Your task to perform on an android device: search for starred emails in the gmail app Image 0: 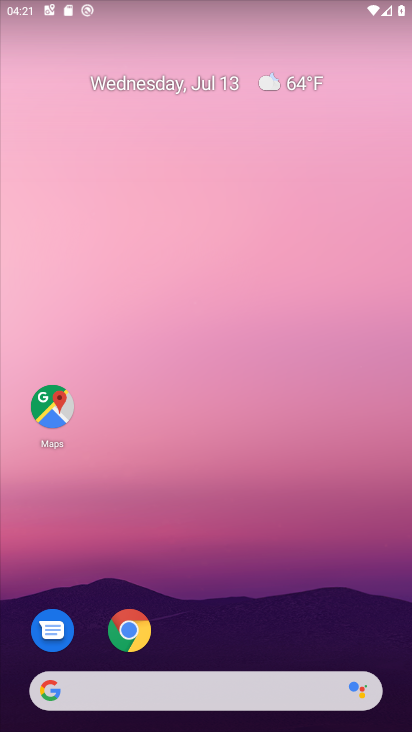
Step 0: drag from (228, 645) to (318, 21)
Your task to perform on an android device: search for starred emails in the gmail app Image 1: 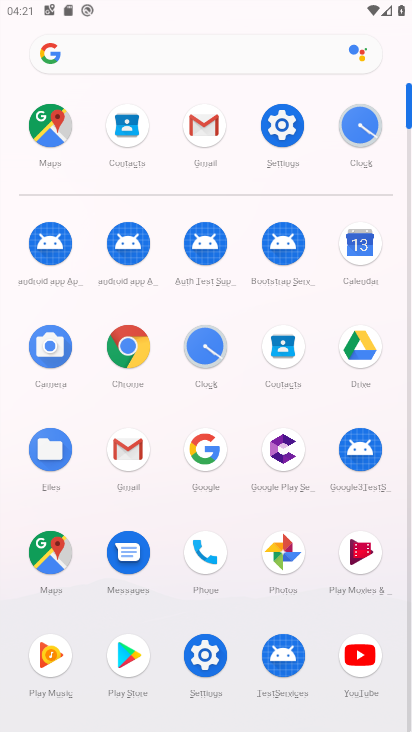
Step 1: click (199, 155)
Your task to perform on an android device: search for starred emails in the gmail app Image 2: 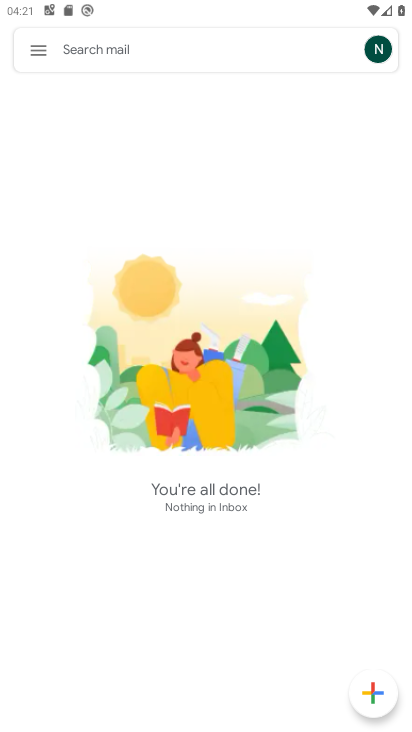
Step 2: click (40, 48)
Your task to perform on an android device: search for starred emails in the gmail app Image 3: 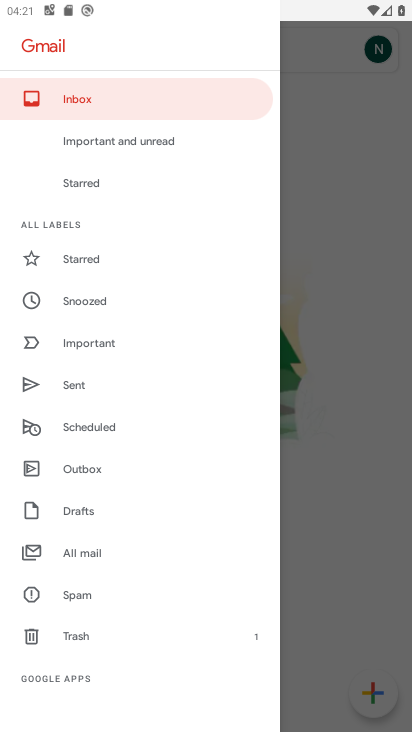
Step 3: click (99, 198)
Your task to perform on an android device: search for starred emails in the gmail app Image 4: 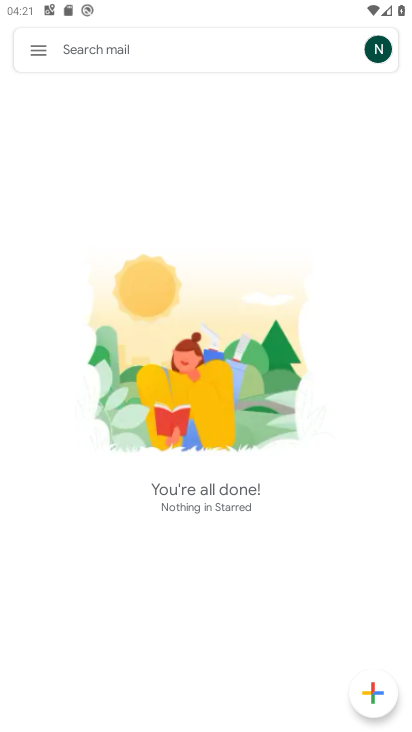
Step 4: task complete